Your task to perform on an android device: open app "Microsoft Outlook" Image 0: 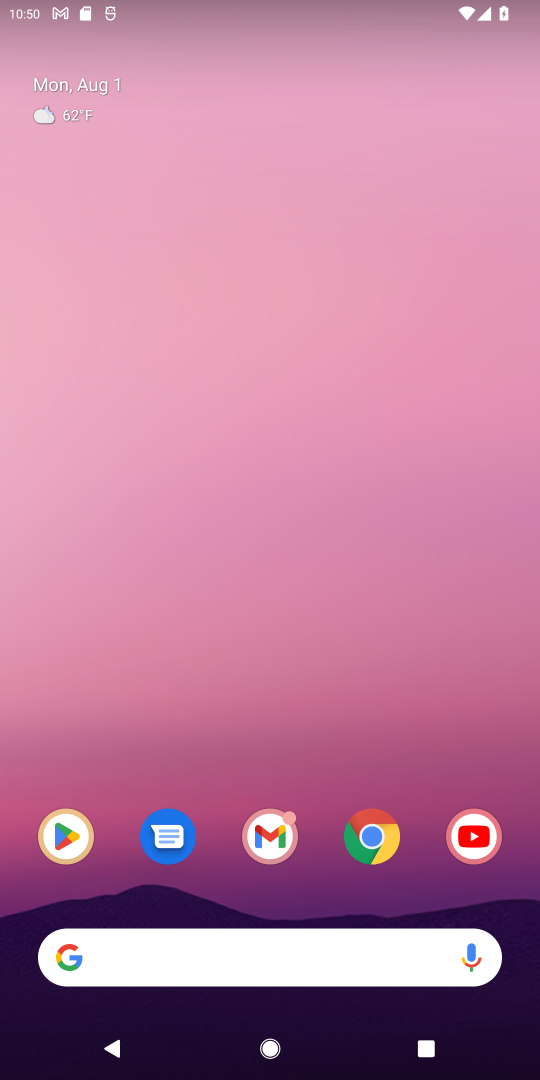
Step 0: drag from (279, 778) to (153, 182)
Your task to perform on an android device: open app "Microsoft Outlook" Image 1: 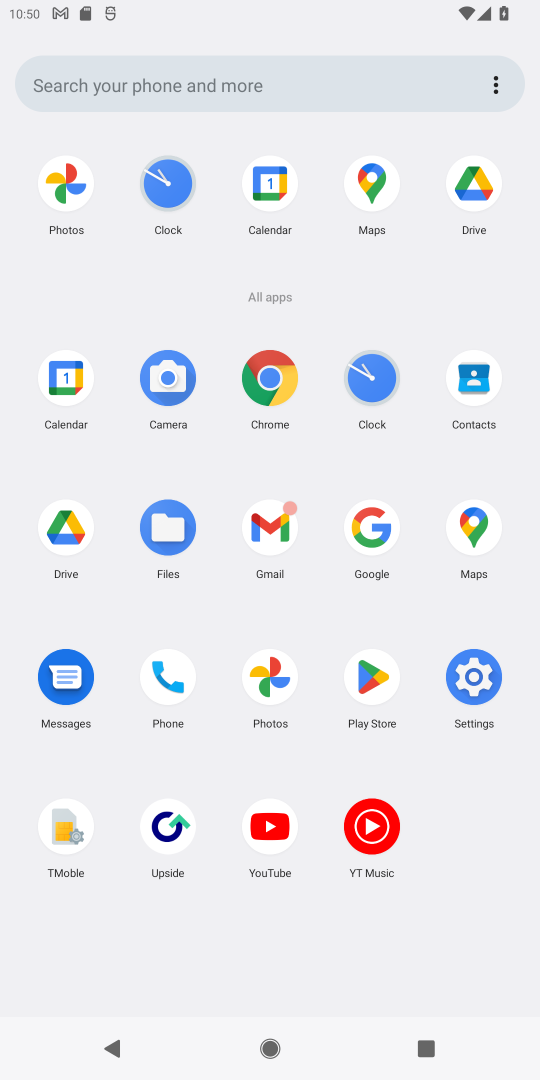
Step 1: click (362, 678)
Your task to perform on an android device: open app "Microsoft Outlook" Image 2: 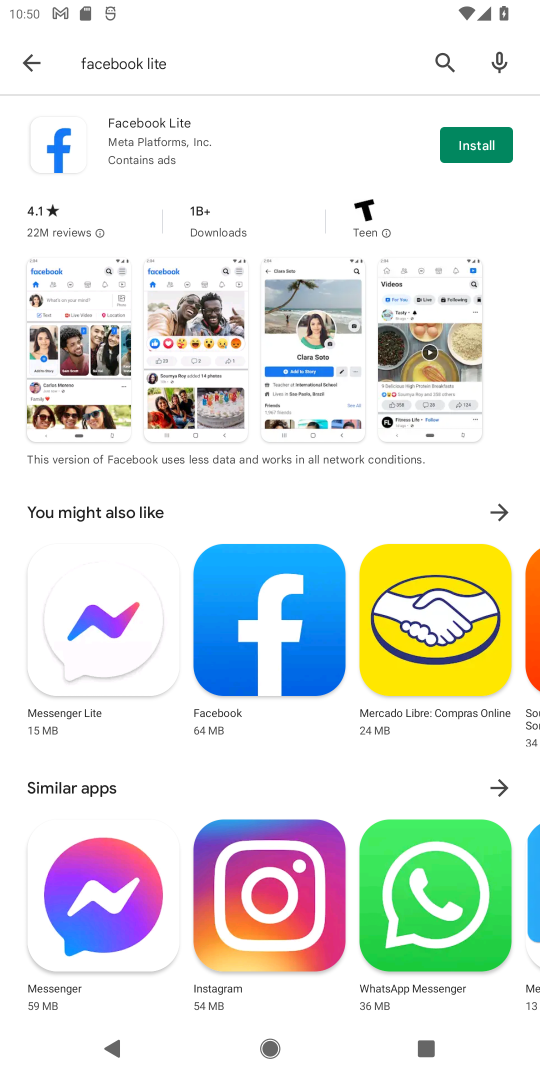
Step 2: click (439, 59)
Your task to perform on an android device: open app "Microsoft Outlook" Image 3: 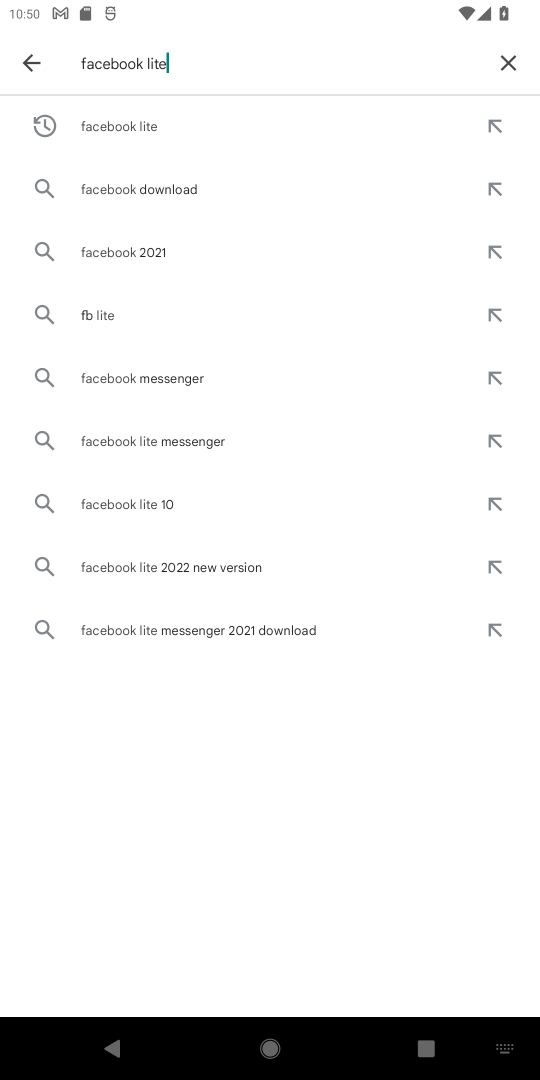
Step 3: click (498, 65)
Your task to perform on an android device: open app "Microsoft Outlook" Image 4: 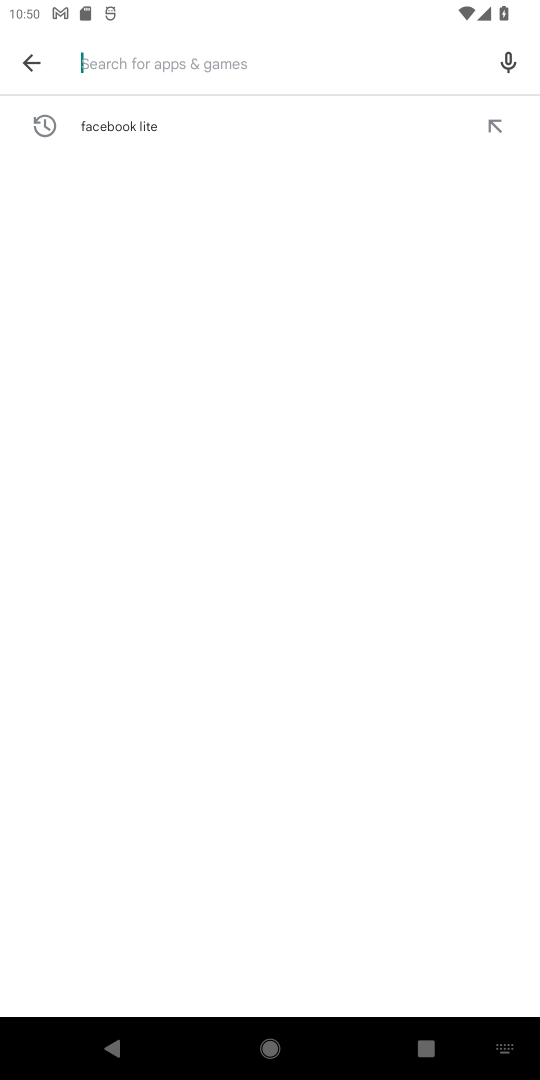
Step 4: type "microsoft outlook"
Your task to perform on an android device: open app "Microsoft Outlook" Image 5: 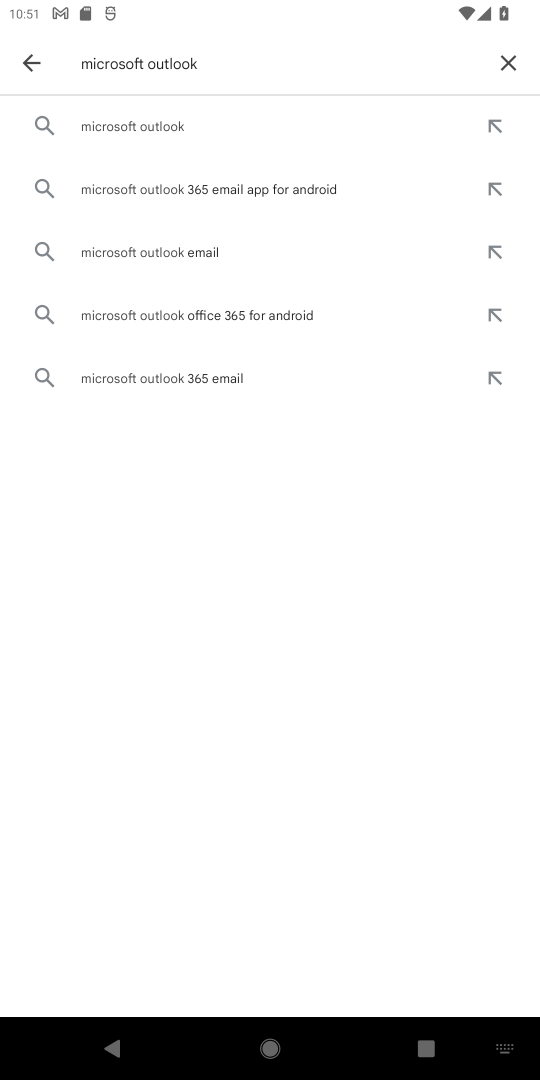
Step 5: click (183, 133)
Your task to perform on an android device: open app "Microsoft Outlook" Image 6: 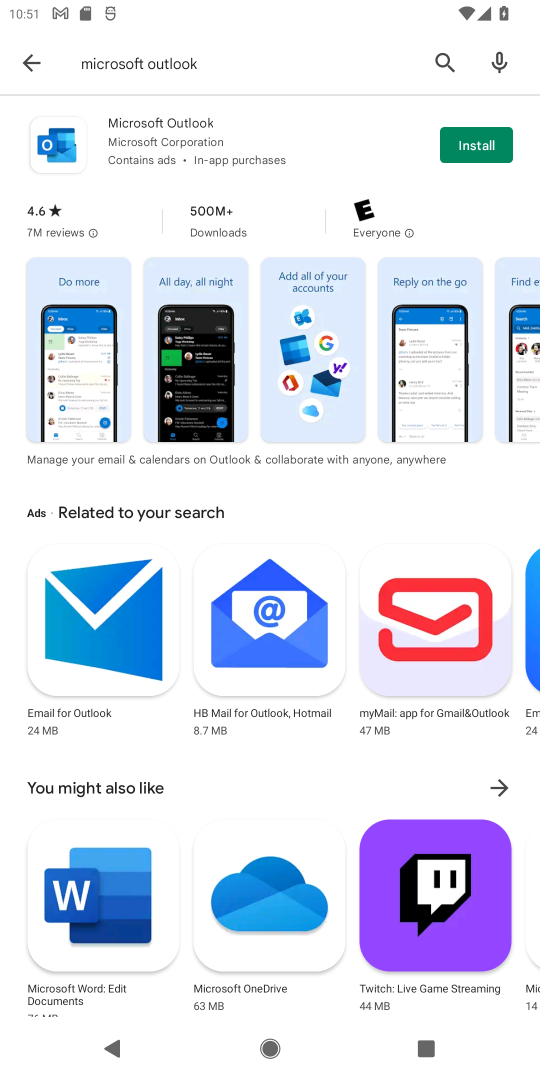
Step 6: task complete